Your task to perform on an android device: turn on data saver in the chrome app Image 0: 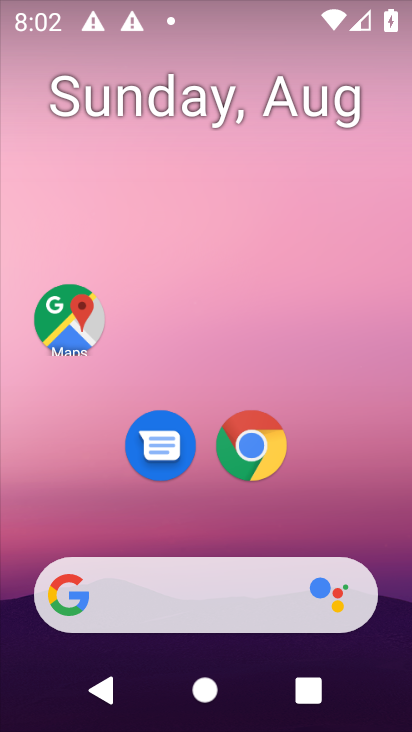
Step 0: press home button
Your task to perform on an android device: turn on data saver in the chrome app Image 1: 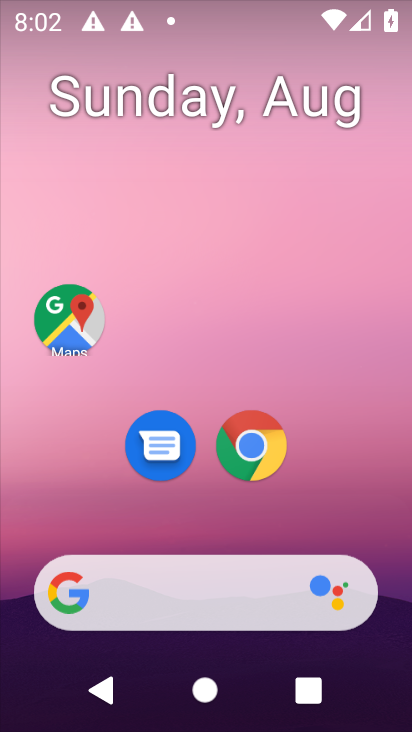
Step 1: click (255, 432)
Your task to perform on an android device: turn on data saver in the chrome app Image 2: 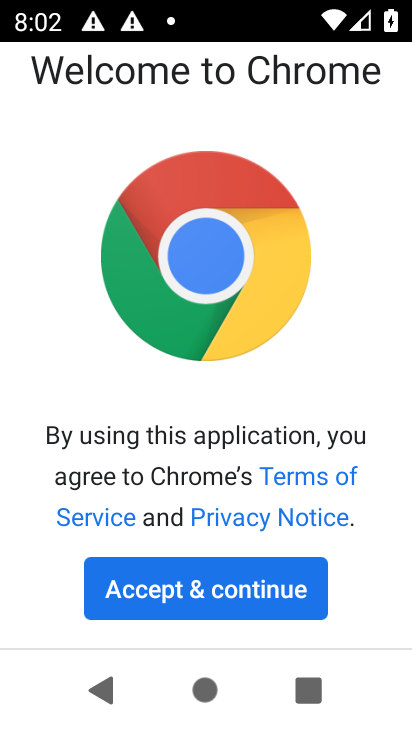
Step 2: click (194, 585)
Your task to perform on an android device: turn on data saver in the chrome app Image 3: 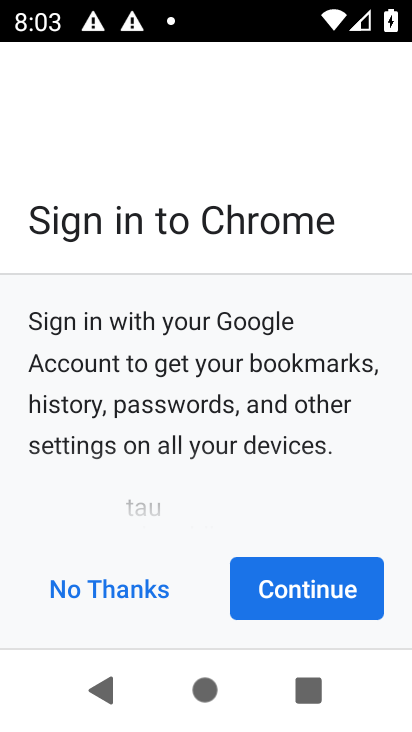
Step 3: click (232, 581)
Your task to perform on an android device: turn on data saver in the chrome app Image 4: 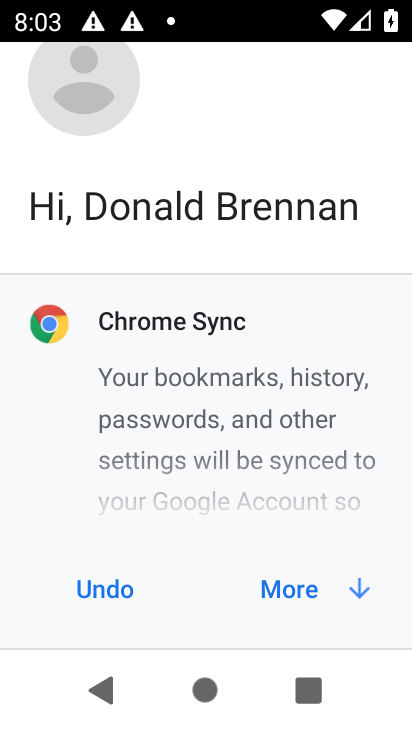
Step 4: click (309, 581)
Your task to perform on an android device: turn on data saver in the chrome app Image 5: 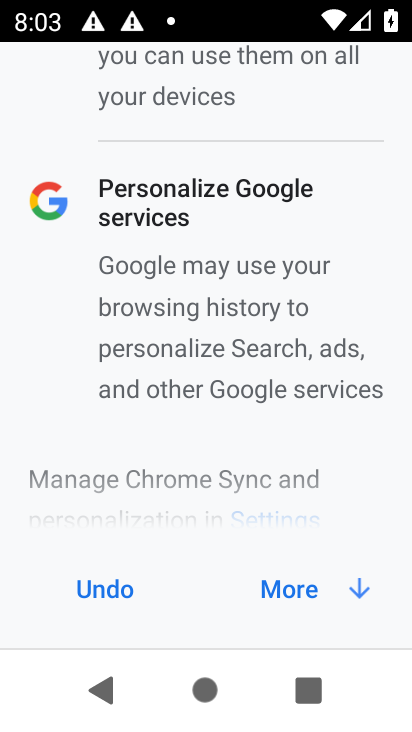
Step 5: click (307, 581)
Your task to perform on an android device: turn on data saver in the chrome app Image 6: 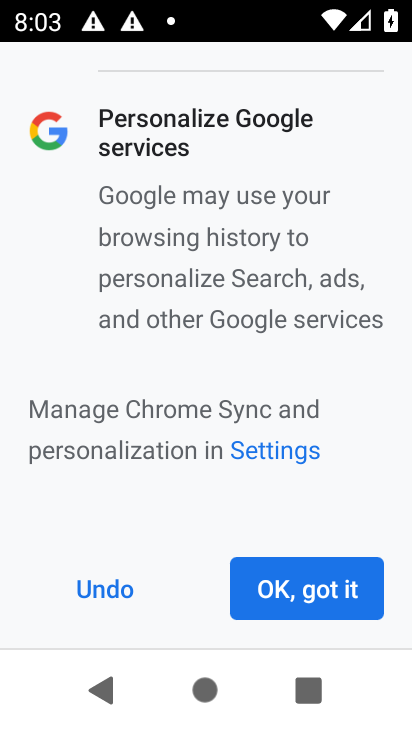
Step 6: click (307, 581)
Your task to perform on an android device: turn on data saver in the chrome app Image 7: 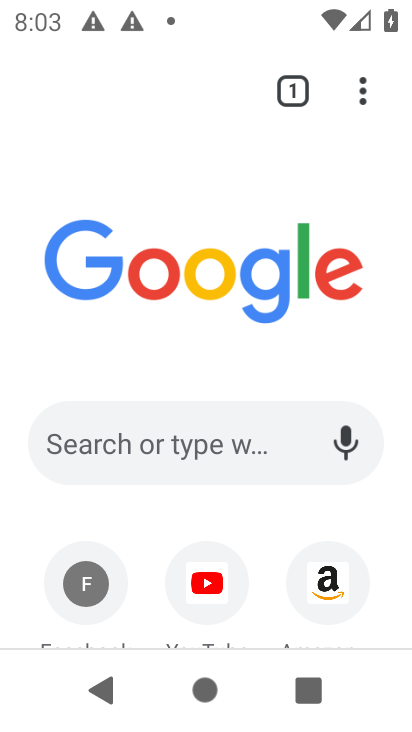
Step 7: click (359, 92)
Your task to perform on an android device: turn on data saver in the chrome app Image 8: 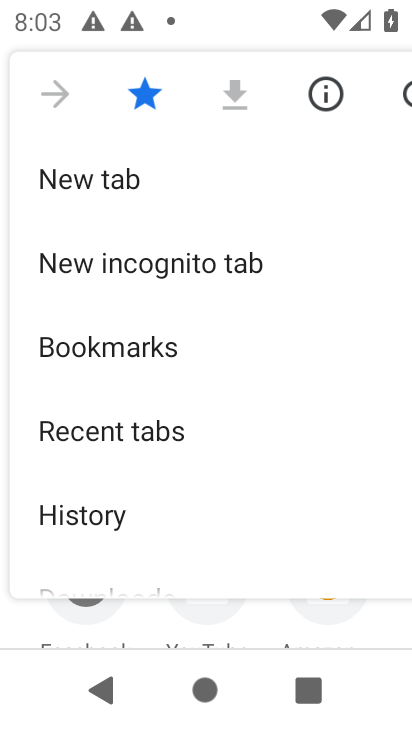
Step 8: drag from (158, 549) to (140, 143)
Your task to perform on an android device: turn on data saver in the chrome app Image 9: 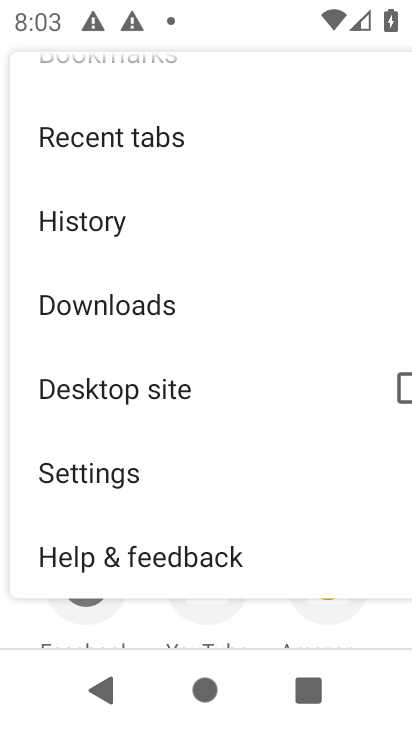
Step 9: click (151, 468)
Your task to perform on an android device: turn on data saver in the chrome app Image 10: 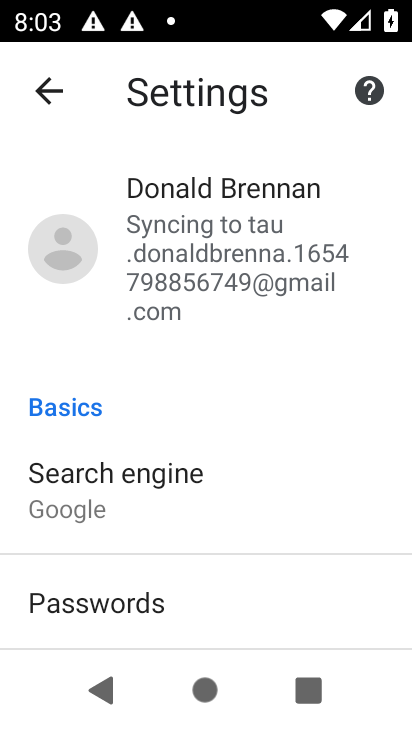
Step 10: drag from (201, 608) to (222, 37)
Your task to perform on an android device: turn on data saver in the chrome app Image 11: 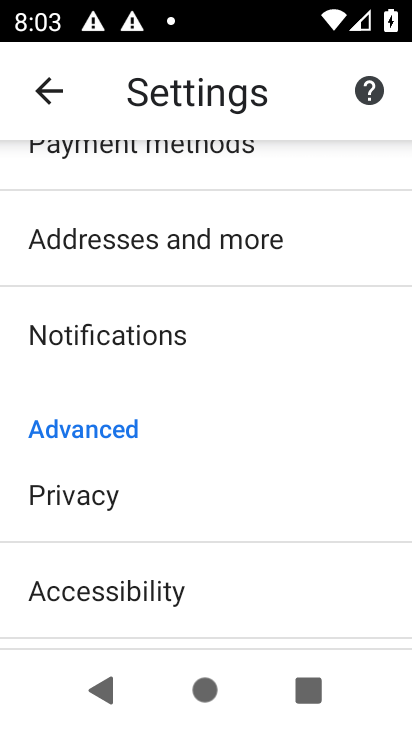
Step 11: drag from (208, 597) to (219, 50)
Your task to perform on an android device: turn on data saver in the chrome app Image 12: 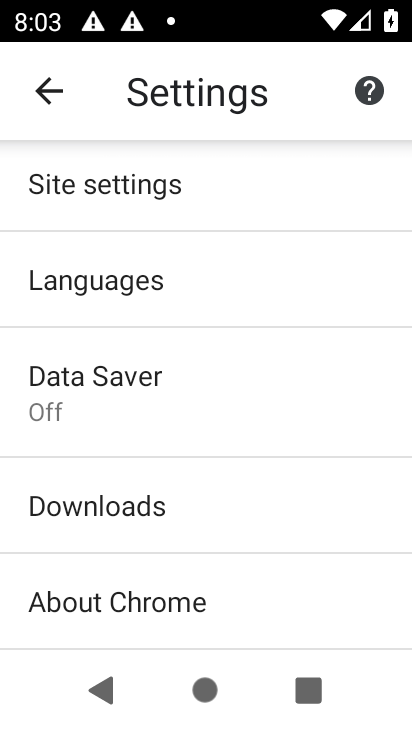
Step 12: click (109, 405)
Your task to perform on an android device: turn on data saver in the chrome app Image 13: 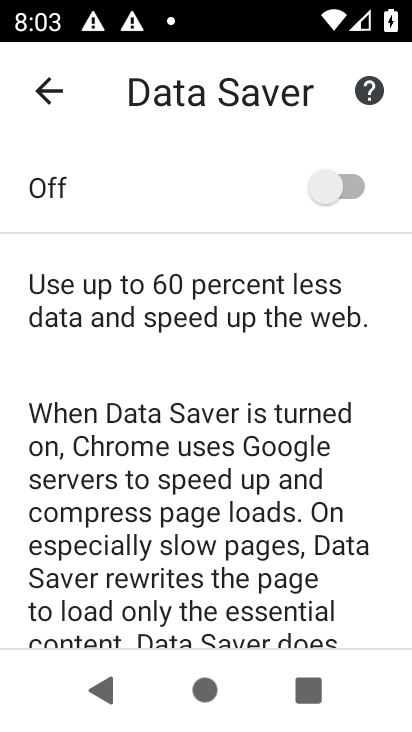
Step 13: click (337, 187)
Your task to perform on an android device: turn on data saver in the chrome app Image 14: 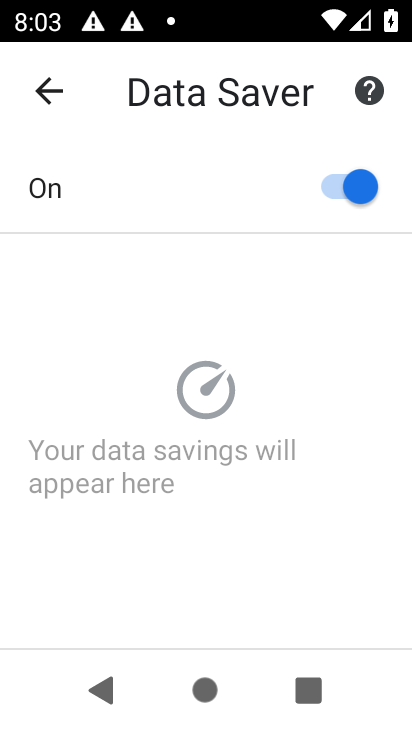
Step 14: task complete